Your task to perform on an android device: Open Chrome and go to the settings page Image 0: 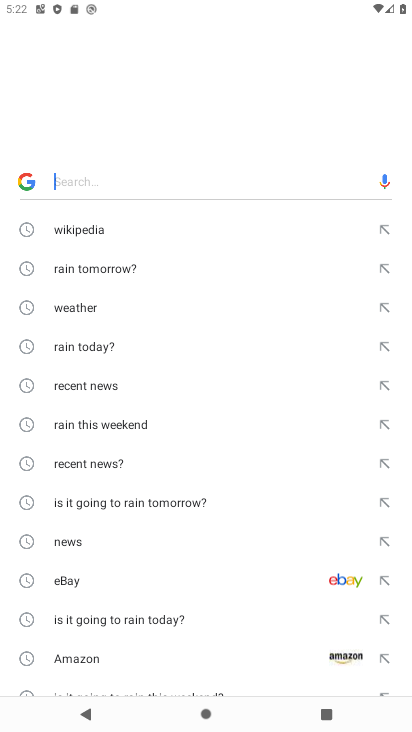
Step 0: press home button
Your task to perform on an android device: Open Chrome and go to the settings page Image 1: 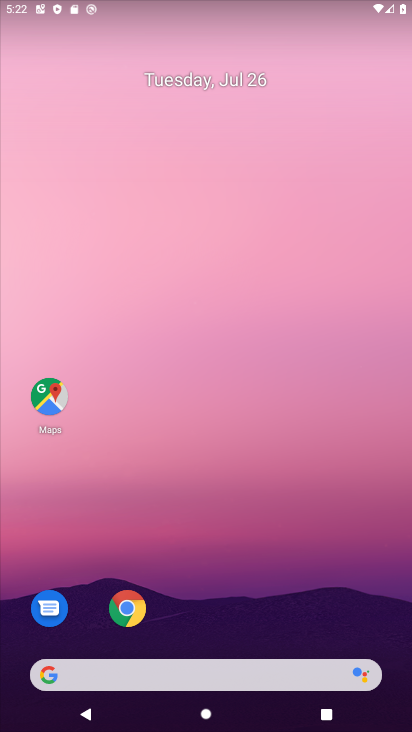
Step 1: drag from (229, 631) to (267, 132)
Your task to perform on an android device: Open Chrome and go to the settings page Image 2: 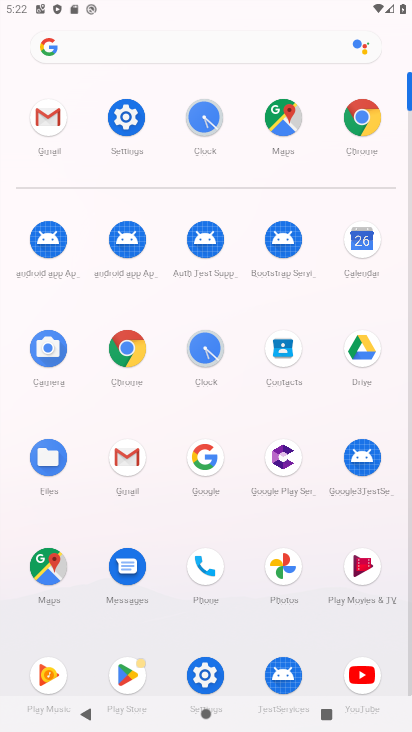
Step 2: click (369, 123)
Your task to perform on an android device: Open Chrome and go to the settings page Image 3: 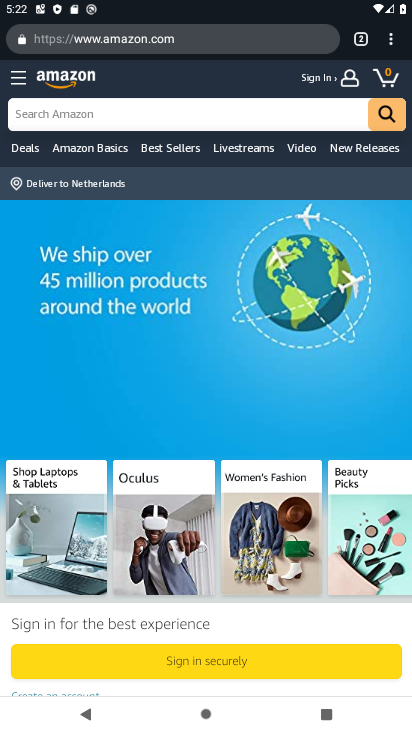
Step 3: task complete